Your task to perform on an android device: Search for the new Nike Air Max 270 on Nike.com Image 0: 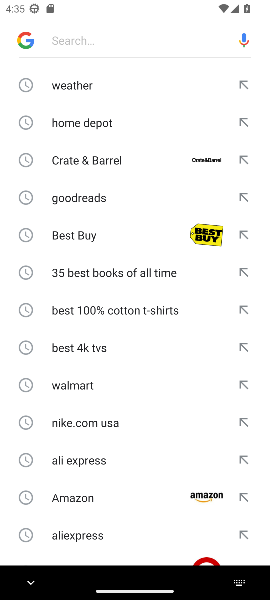
Step 0: press home button
Your task to perform on an android device: Search for the new Nike Air Max 270 on Nike.com Image 1: 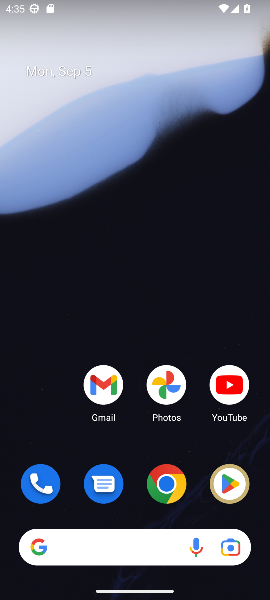
Step 1: click (171, 490)
Your task to perform on an android device: Search for the new Nike Air Max 270 on Nike.com Image 2: 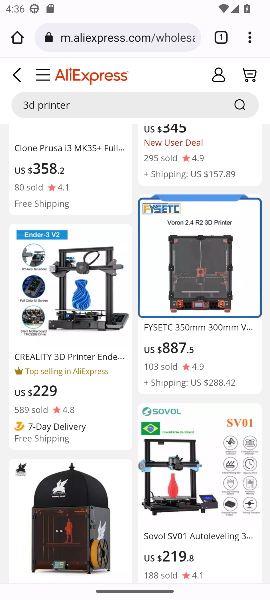
Step 2: click (123, 32)
Your task to perform on an android device: Search for the new Nike Air Max 270 on Nike.com Image 3: 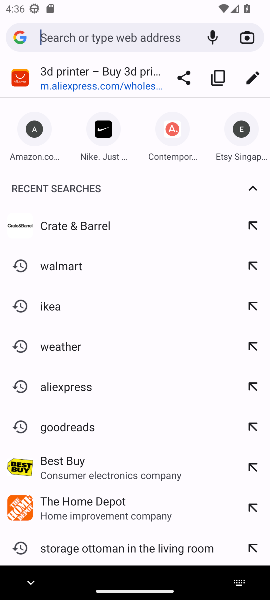
Step 3: type "Nike.com"
Your task to perform on an android device: Search for the new Nike Air Max 270 on Nike.com Image 4: 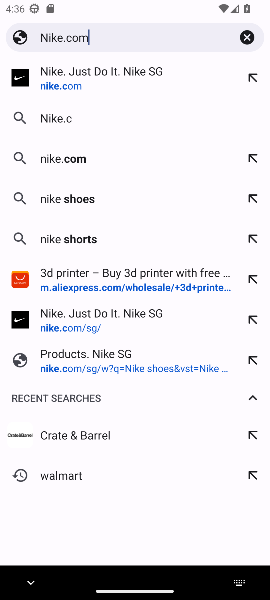
Step 4: press enter
Your task to perform on an android device: Search for the new Nike Air Max 270 on Nike.com Image 5: 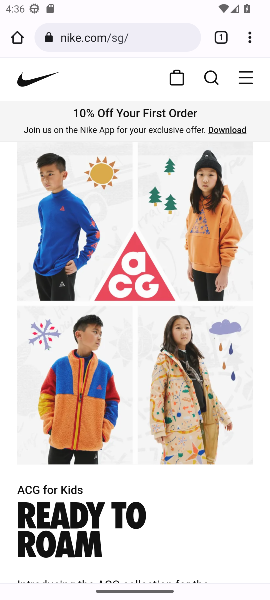
Step 5: click (200, 75)
Your task to perform on an android device: Search for the new Nike Air Max 270 on Nike.com Image 6: 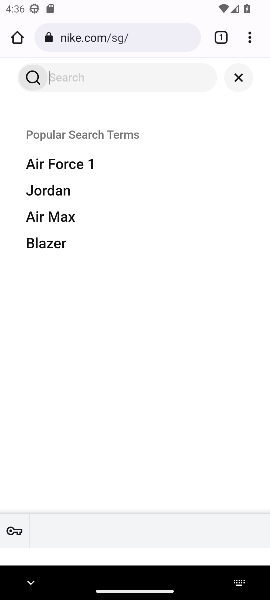
Step 6: click (82, 74)
Your task to perform on an android device: Search for the new Nike Air Max 270 on Nike.com Image 7: 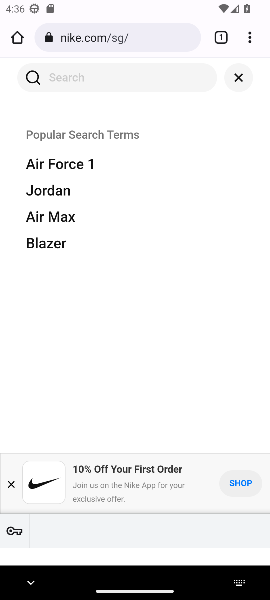
Step 7: type "Air Max 270"
Your task to perform on an android device: Search for the new Nike Air Max 270 on Nike.com Image 8: 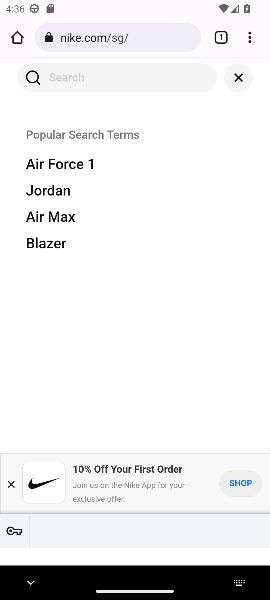
Step 8: press enter
Your task to perform on an android device: Search for the new Nike Air Max 270 on Nike.com Image 9: 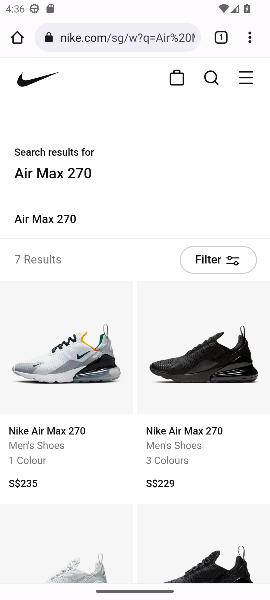
Step 9: task complete